Your task to perform on an android device: Open privacy settings Image 0: 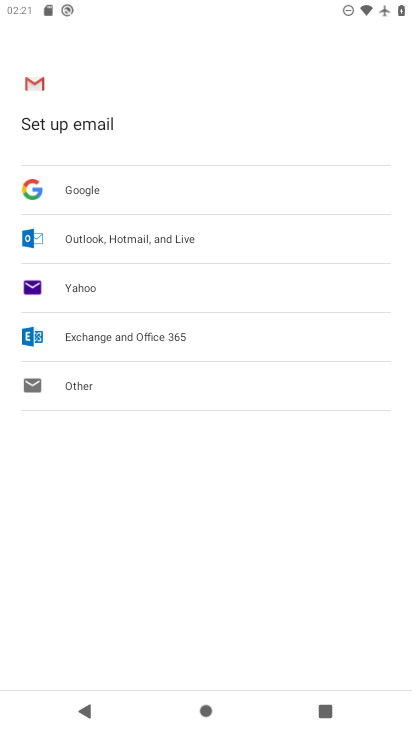
Step 0: press home button
Your task to perform on an android device: Open privacy settings Image 1: 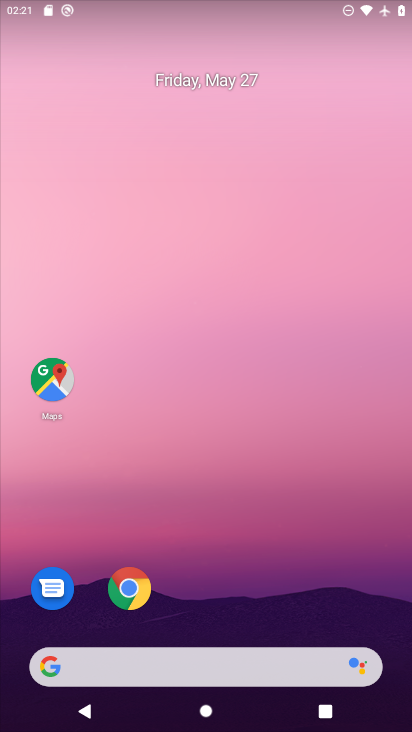
Step 1: drag from (353, 627) to (297, 89)
Your task to perform on an android device: Open privacy settings Image 2: 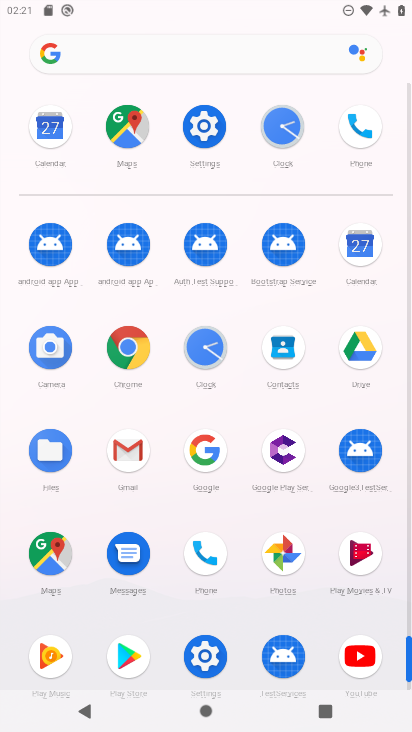
Step 2: click (207, 657)
Your task to perform on an android device: Open privacy settings Image 3: 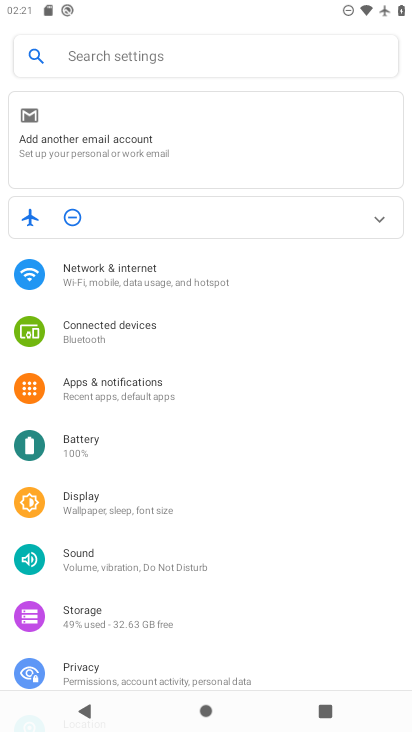
Step 3: drag from (274, 651) to (290, 185)
Your task to perform on an android device: Open privacy settings Image 4: 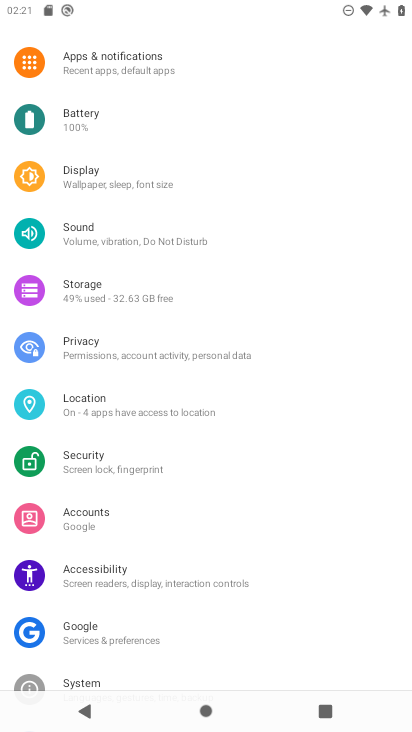
Step 4: click (78, 346)
Your task to perform on an android device: Open privacy settings Image 5: 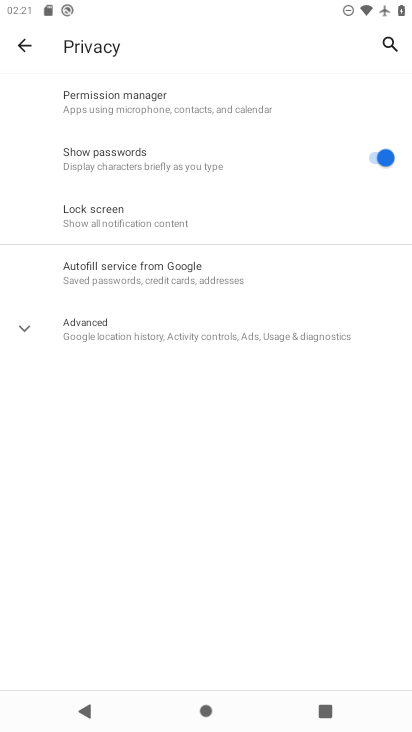
Step 5: click (13, 323)
Your task to perform on an android device: Open privacy settings Image 6: 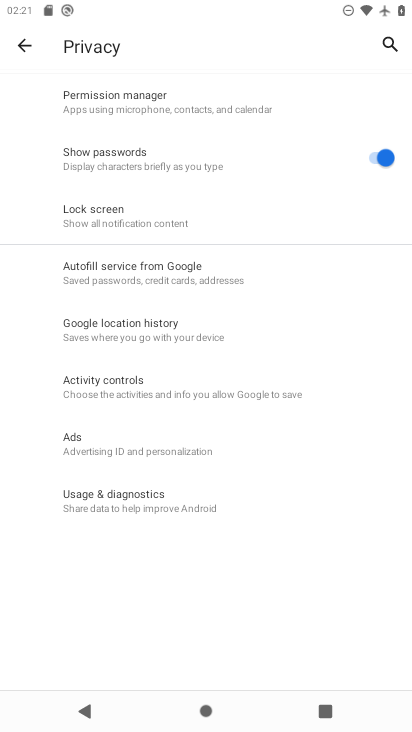
Step 6: task complete